Your task to perform on an android device: Open Youtube and go to the subscriptions tab Image 0: 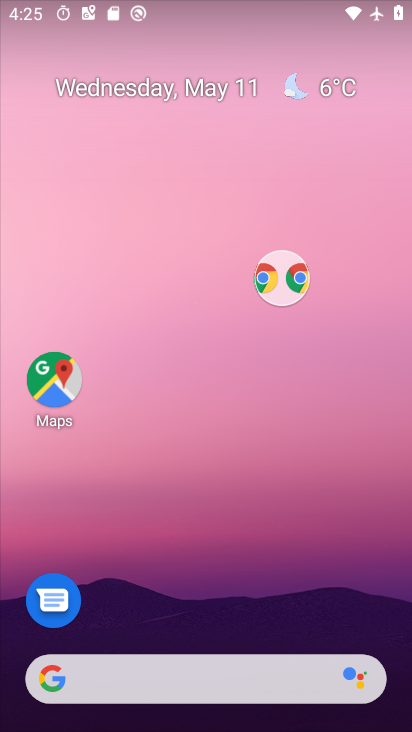
Step 0: drag from (302, 640) to (123, 0)
Your task to perform on an android device: Open Youtube and go to the subscriptions tab Image 1: 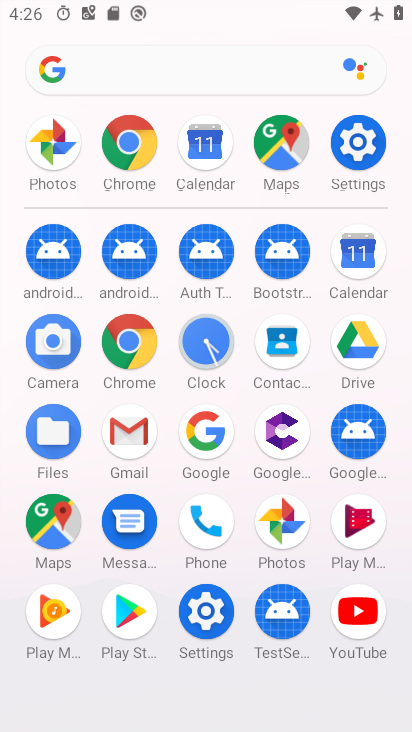
Step 1: click (349, 609)
Your task to perform on an android device: Open Youtube and go to the subscriptions tab Image 2: 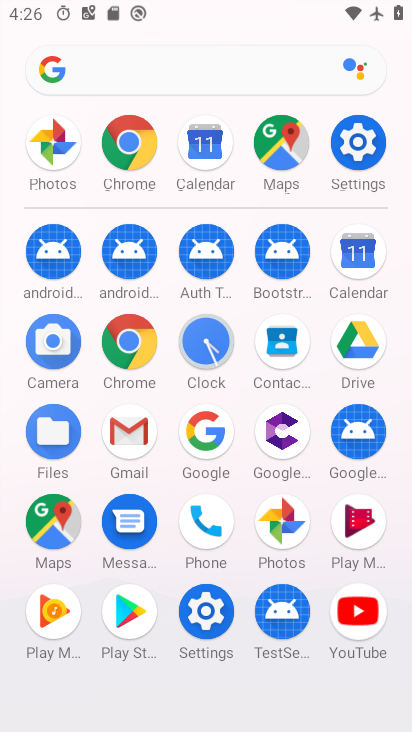
Step 2: click (348, 608)
Your task to perform on an android device: Open Youtube and go to the subscriptions tab Image 3: 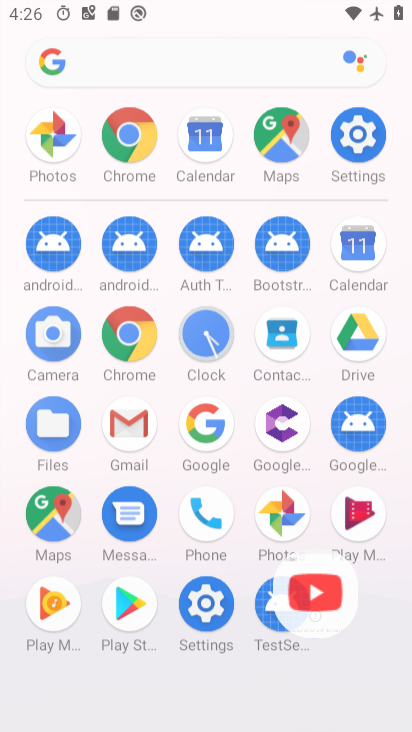
Step 3: click (349, 608)
Your task to perform on an android device: Open Youtube and go to the subscriptions tab Image 4: 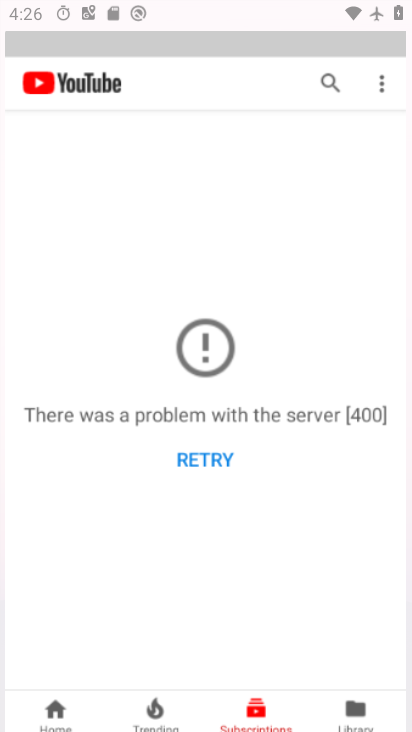
Step 4: click (351, 603)
Your task to perform on an android device: Open Youtube and go to the subscriptions tab Image 5: 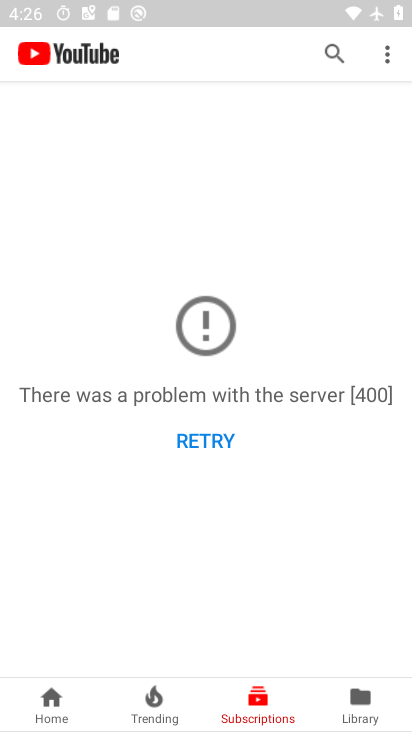
Step 5: click (259, 687)
Your task to perform on an android device: Open Youtube and go to the subscriptions tab Image 6: 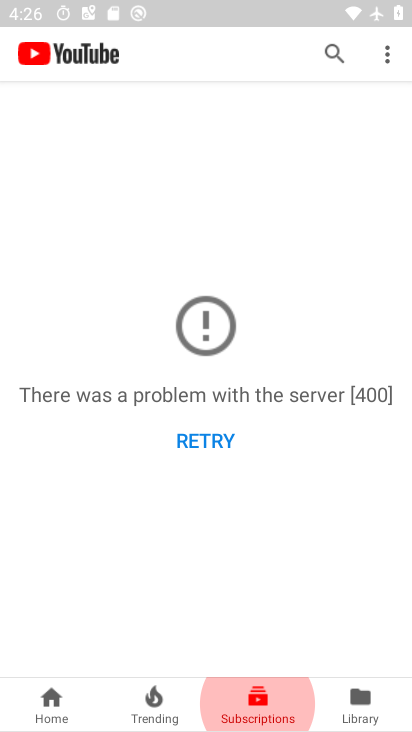
Step 6: click (264, 684)
Your task to perform on an android device: Open Youtube and go to the subscriptions tab Image 7: 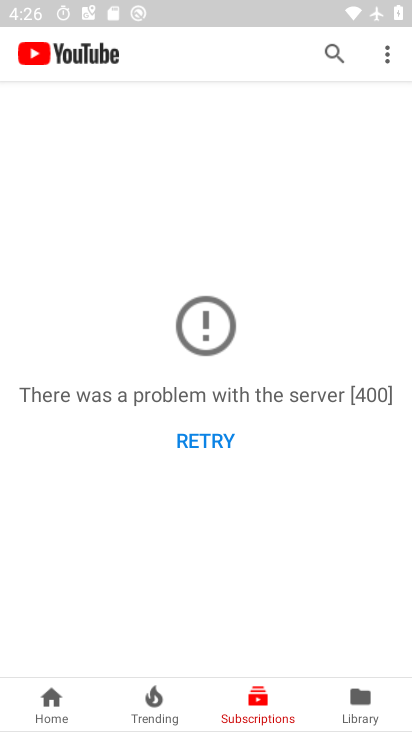
Step 7: click (265, 684)
Your task to perform on an android device: Open Youtube and go to the subscriptions tab Image 8: 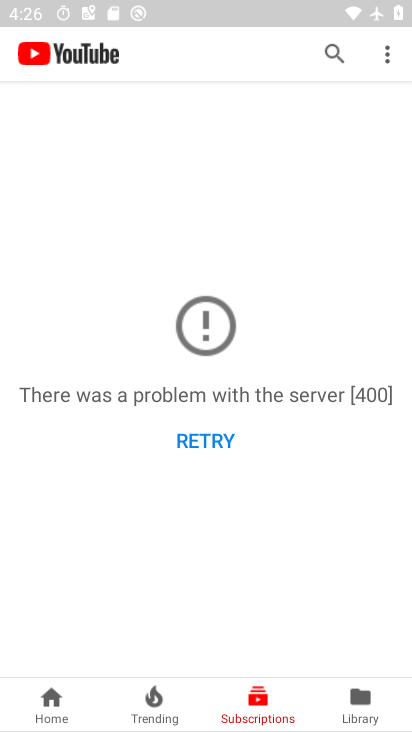
Step 8: task complete